Your task to perform on an android device: find which apps use the phone's location Image 0: 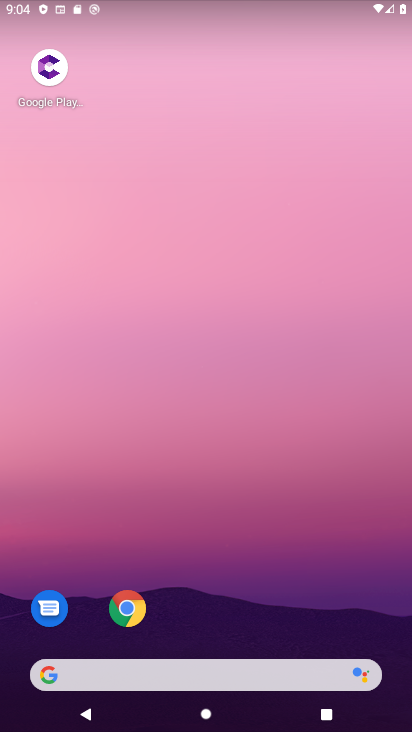
Step 0: drag from (297, 451) to (170, 0)
Your task to perform on an android device: find which apps use the phone's location Image 1: 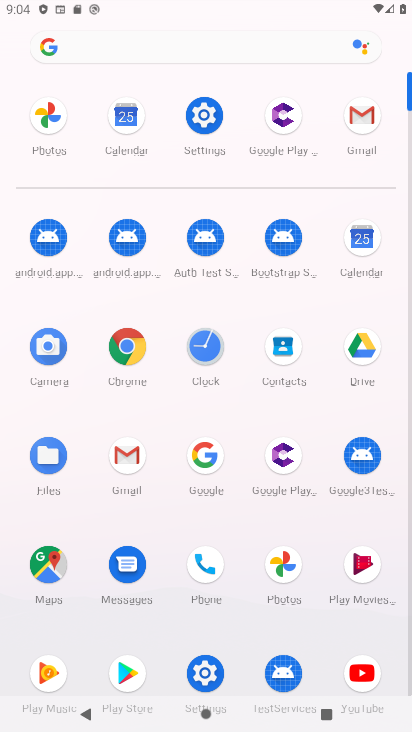
Step 1: click (223, 110)
Your task to perform on an android device: find which apps use the phone's location Image 2: 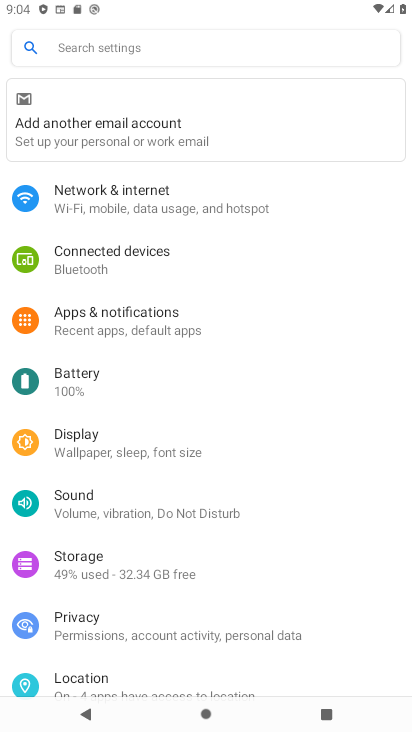
Step 2: click (191, 679)
Your task to perform on an android device: find which apps use the phone's location Image 3: 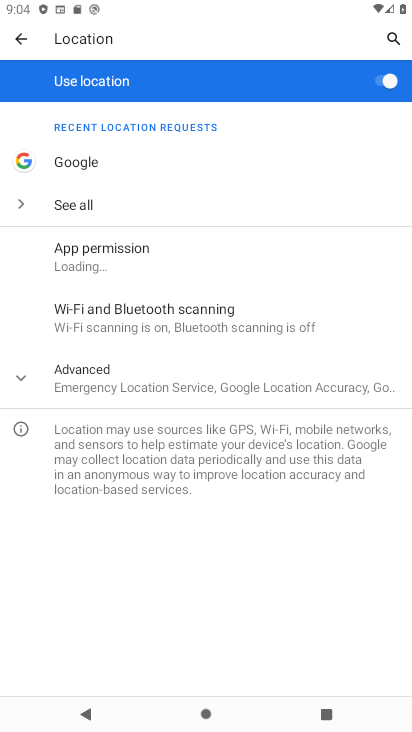
Step 3: click (131, 247)
Your task to perform on an android device: find which apps use the phone's location Image 4: 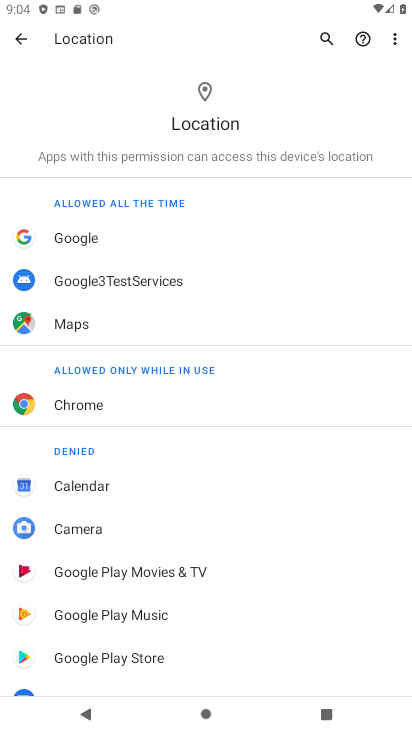
Step 4: task complete